Your task to perform on an android device: Add "razer huntsman" to the cart on costco.com Image 0: 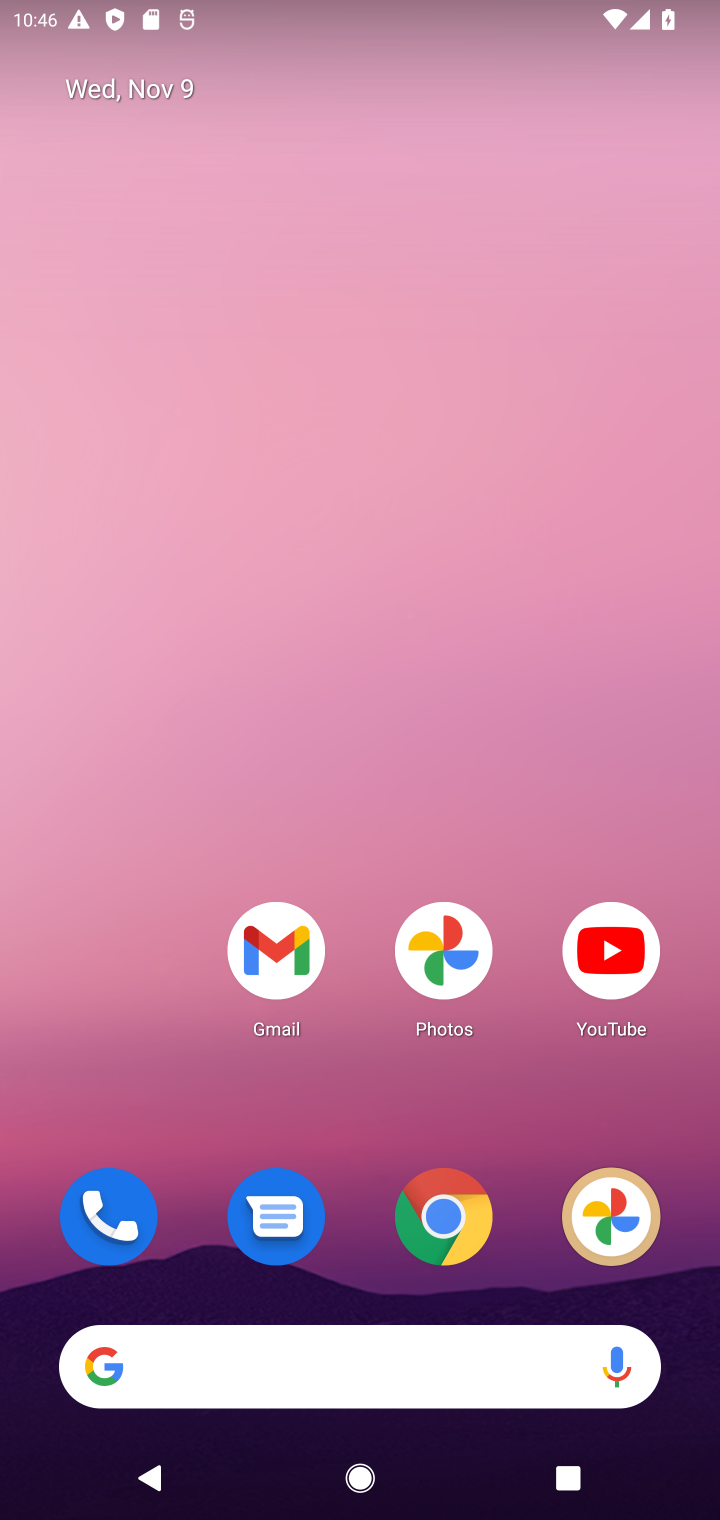
Step 0: drag from (369, 1047) to (556, 0)
Your task to perform on an android device: Add "razer huntsman" to the cart on costco.com Image 1: 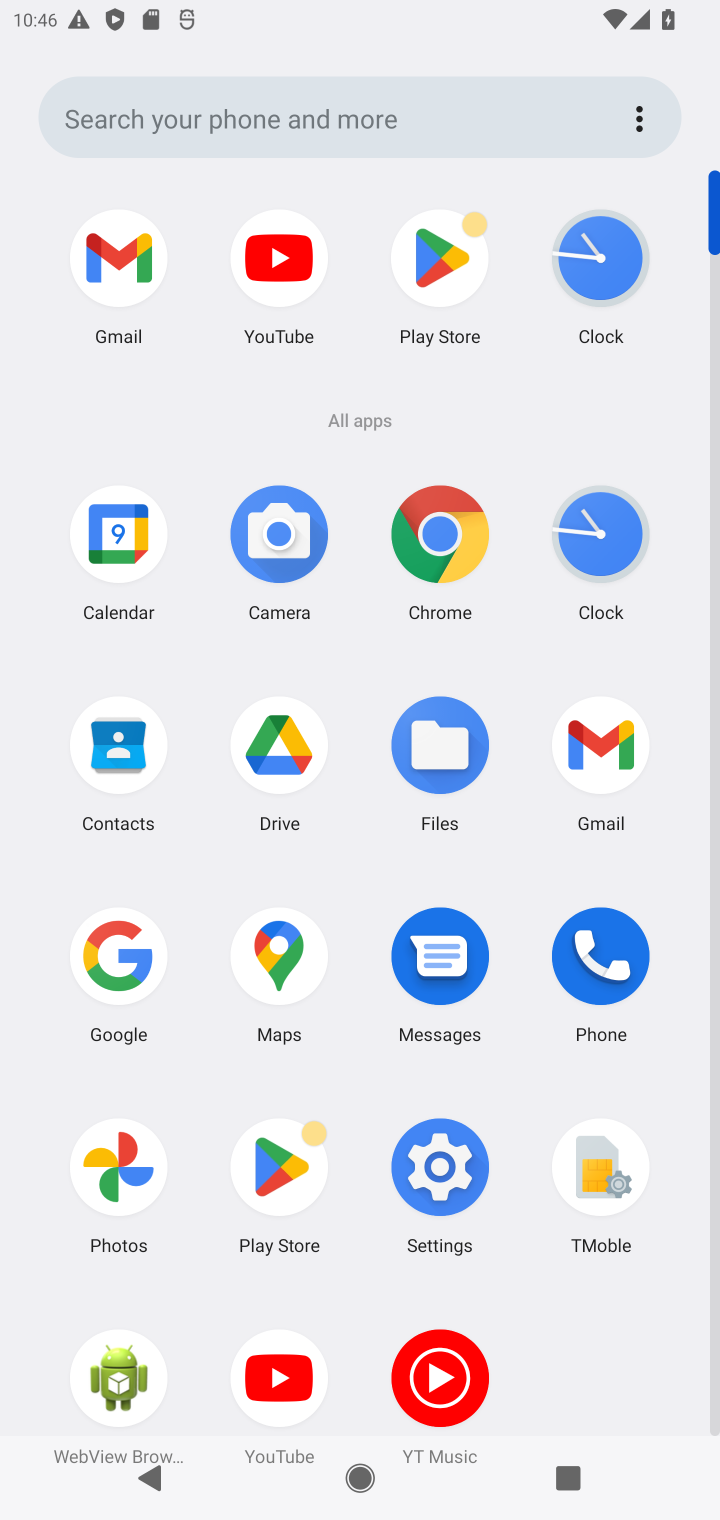
Step 1: click (441, 543)
Your task to perform on an android device: Add "razer huntsman" to the cart on costco.com Image 2: 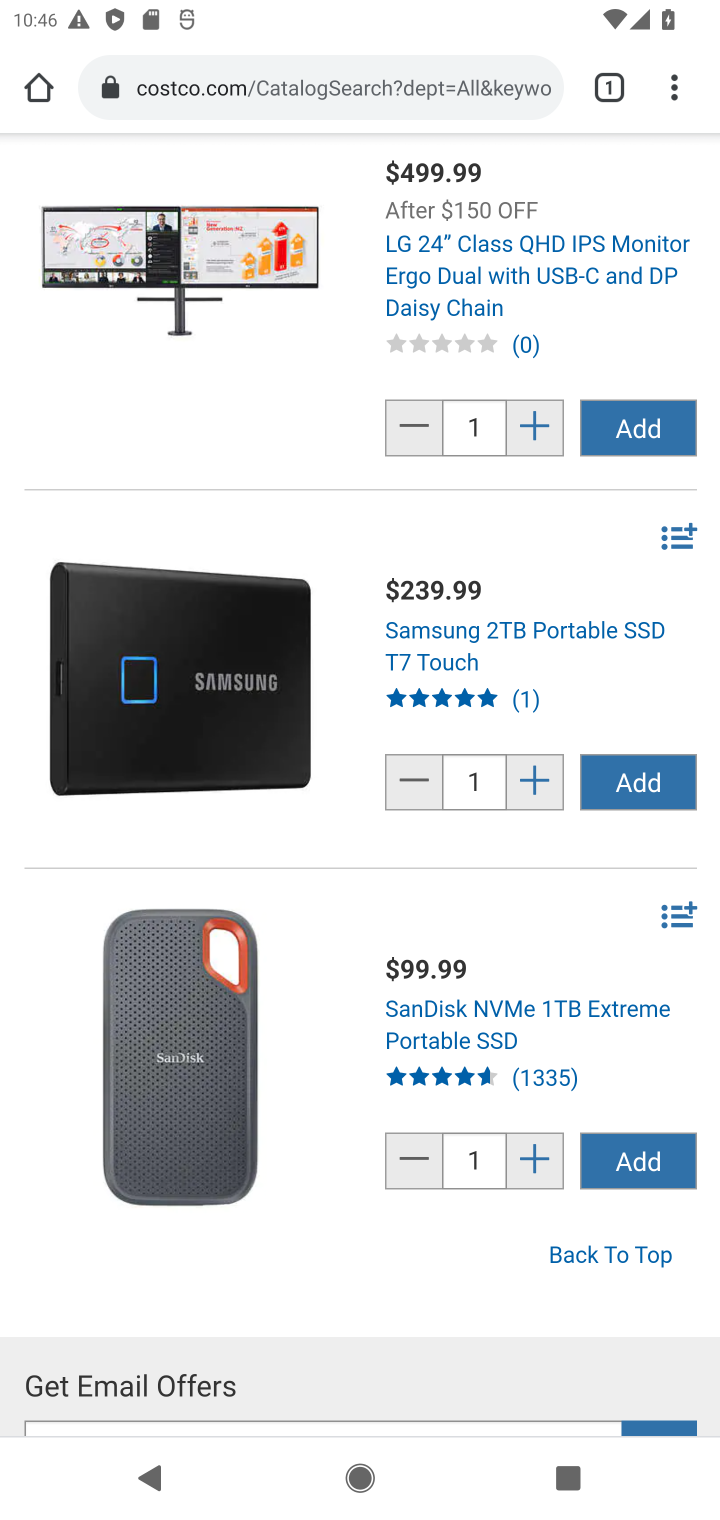
Step 2: click (295, 79)
Your task to perform on an android device: Add "razer huntsman" to the cart on costco.com Image 3: 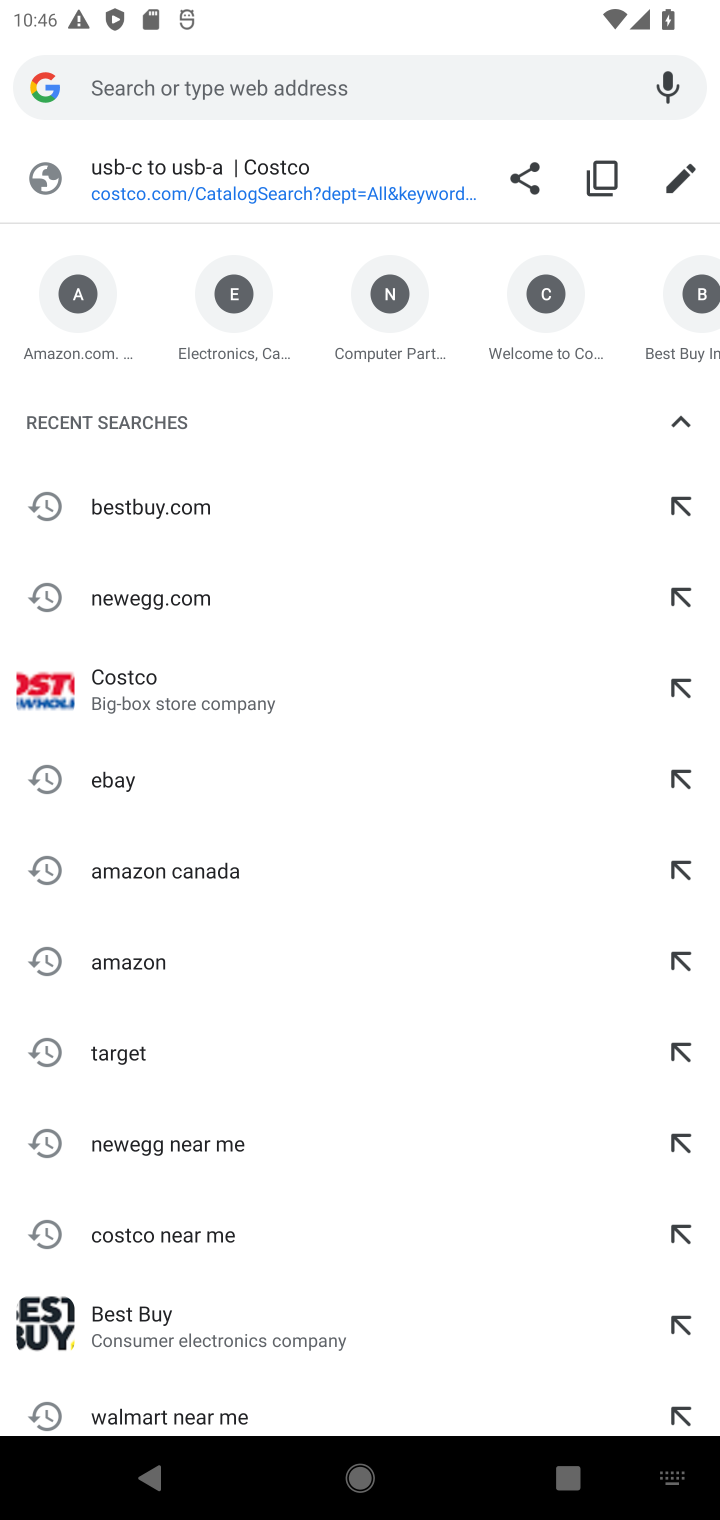
Step 3: type "costco.com"
Your task to perform on an android device: Add "razer huntsman" to the cart on costco.com Image 4: 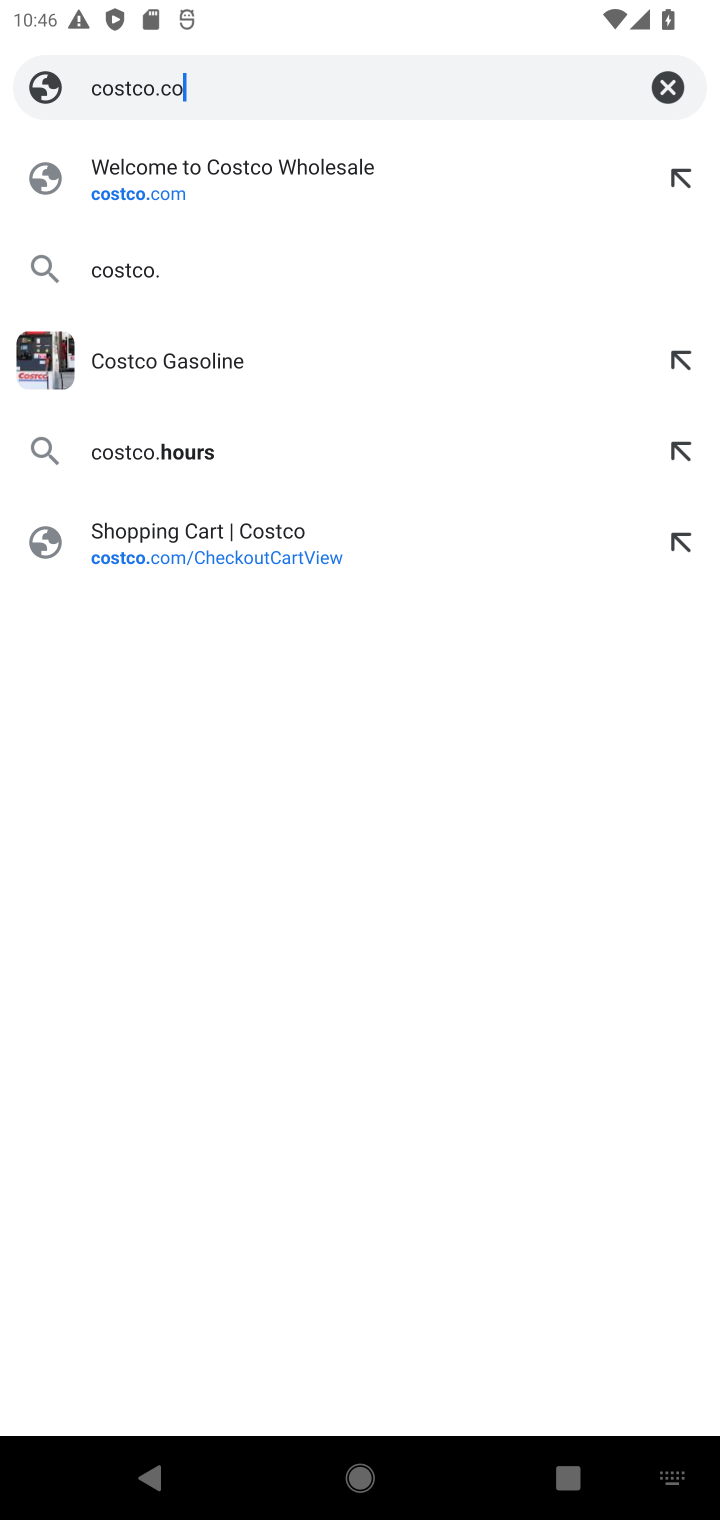
Step 4: press enter
Your task to perform on an android device: Add "razer huntsman" to the cart on costco.com Image 5: 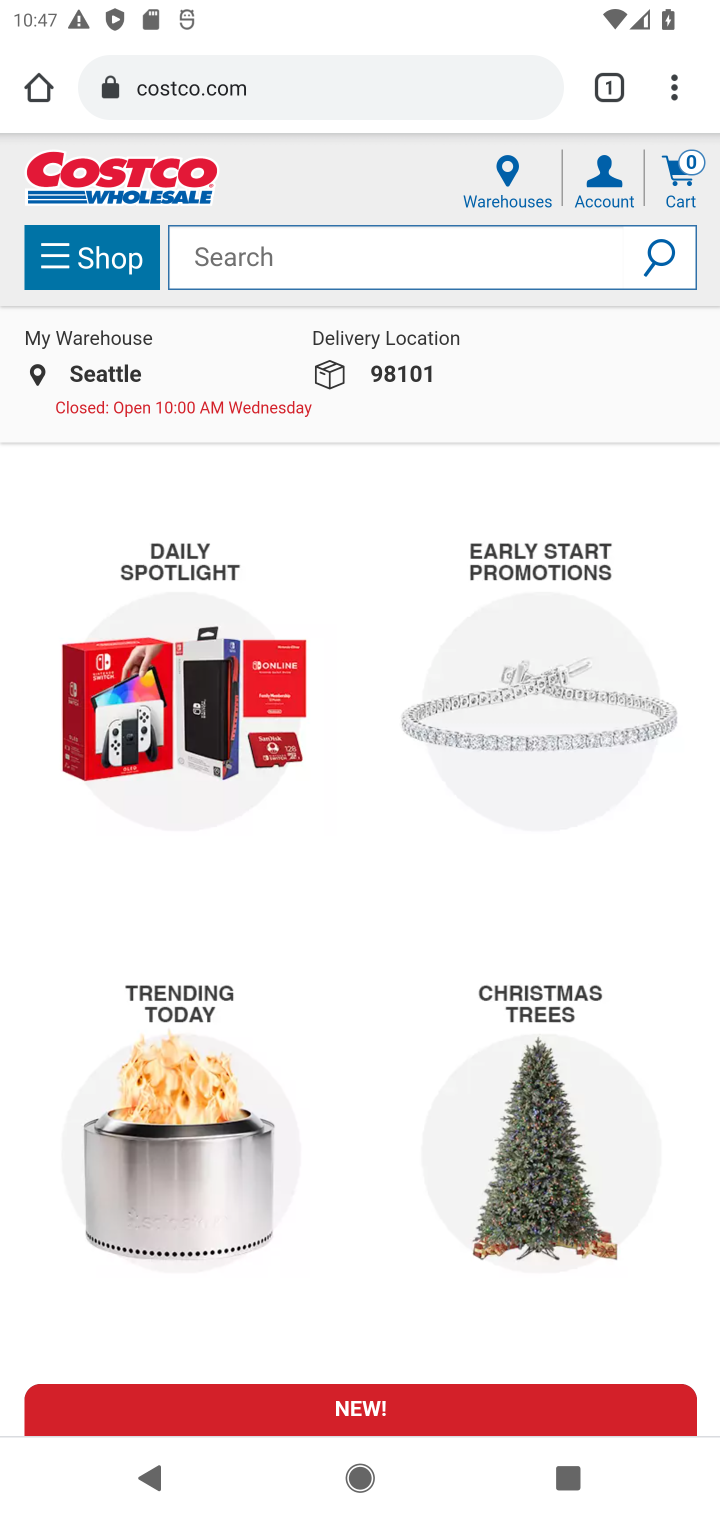
Step 5: click (264, 267)
Your task to perform on an android device: Add "razer huntsman" to the cart on costco.com Image 6: 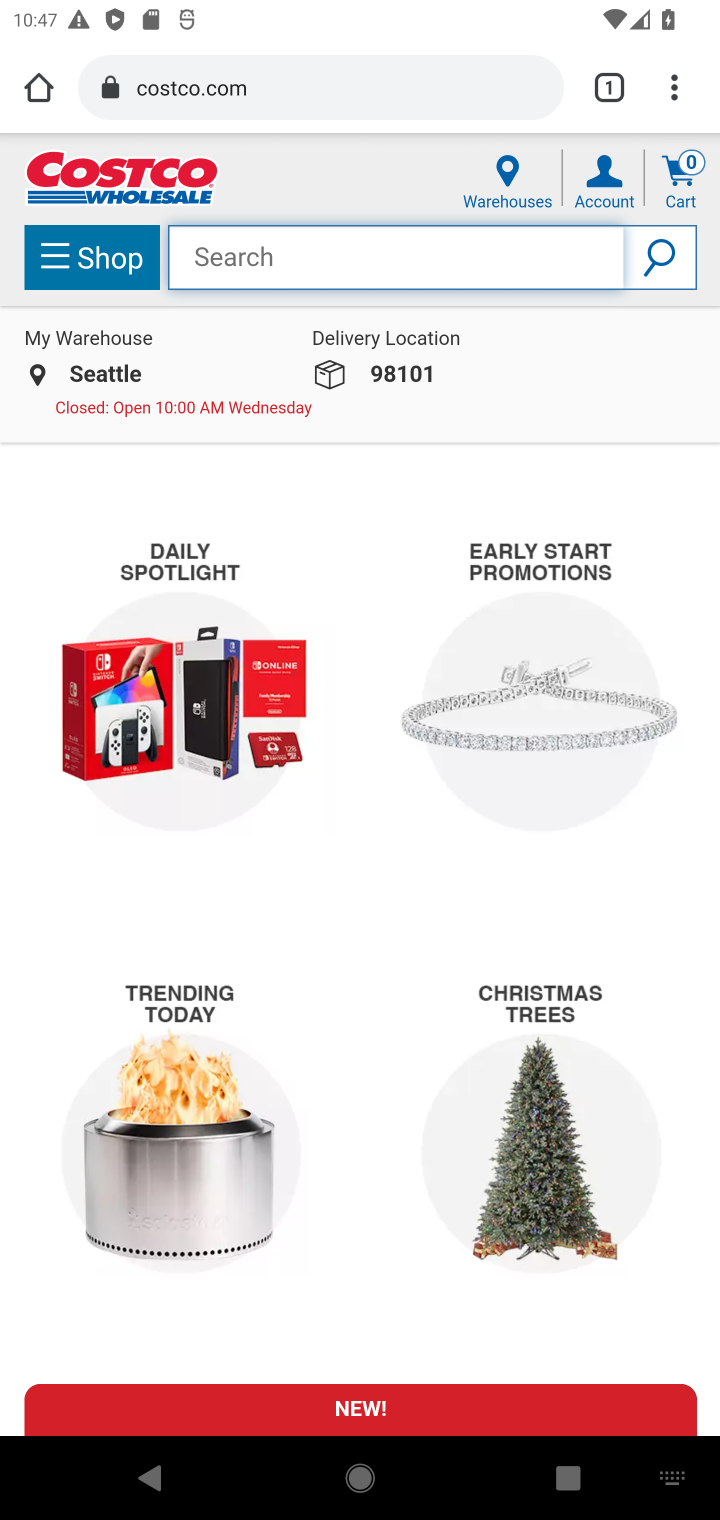
Step 6: type "razer huntsman"
Your task to perform on an android device: Add "razer huntsman" to the cart on costco.com Image 7: 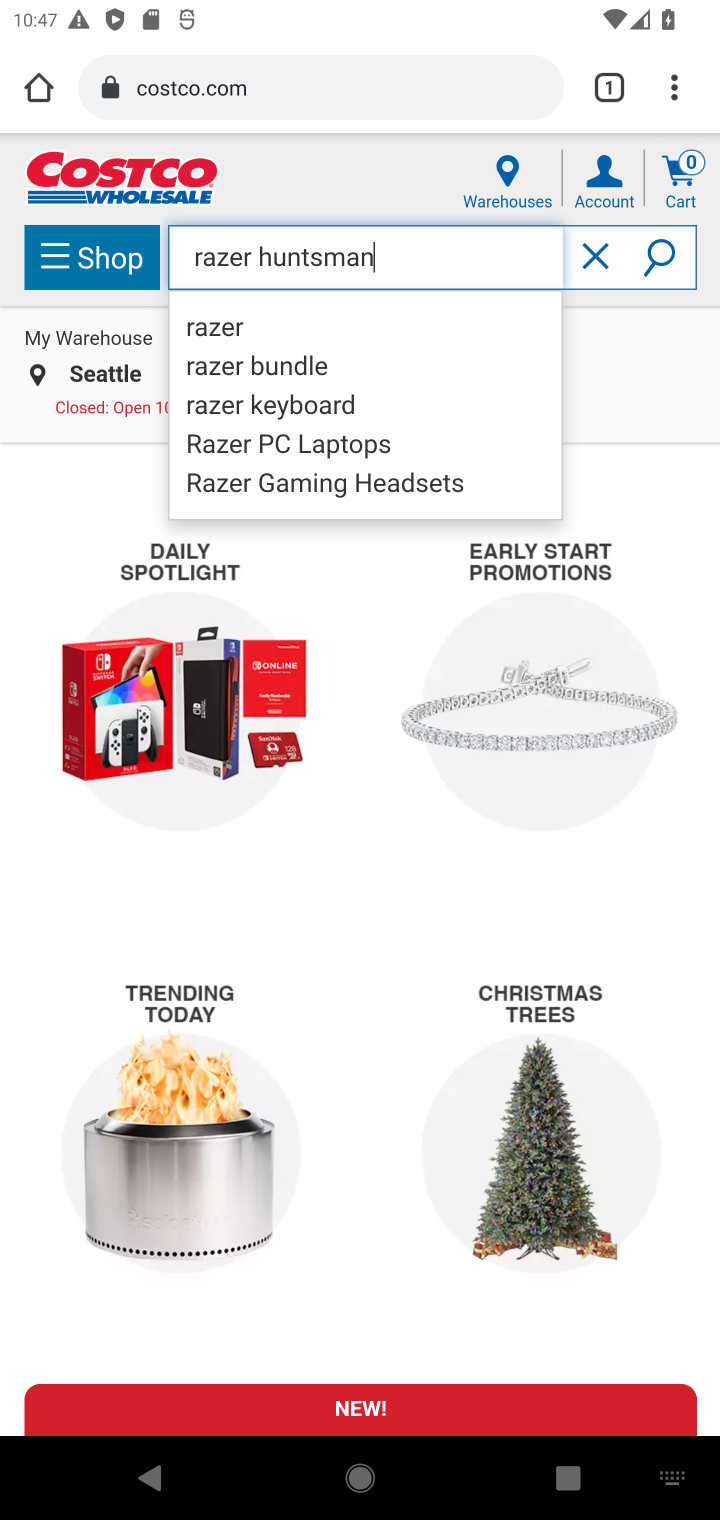
Step 7: press enter
Your task to perform on an android device: Add "razer huntsman" to the cart on costco.com Image 8: 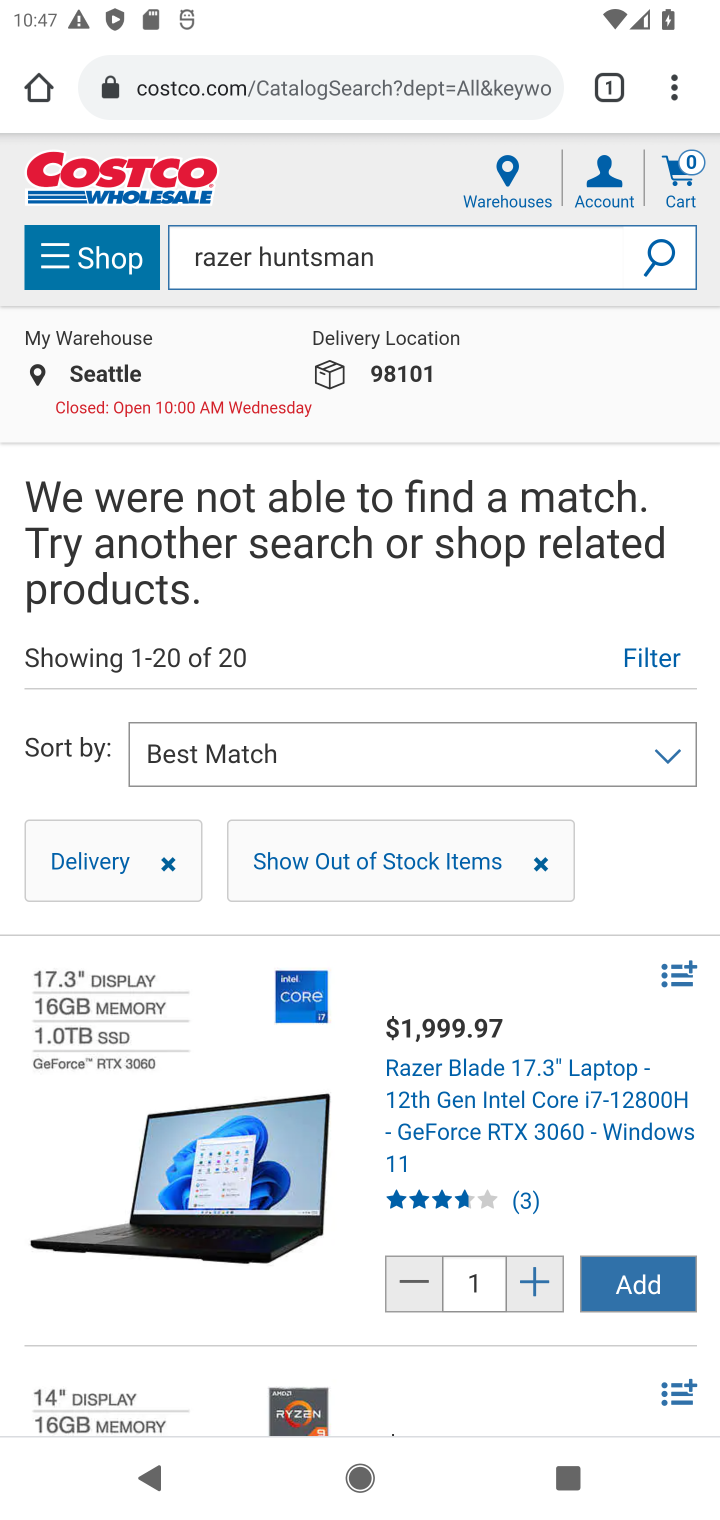
Step 8: task complete